Your task to perform on an android device: turn on bluetooth scan Image 0: 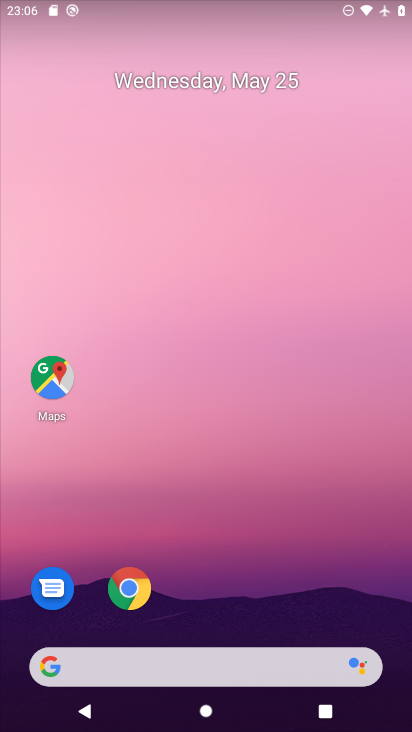
Step 0: drag from (256, 543) to (195, 109)
Your task to perform on an android device: turn on bluetooth scan Image 1: 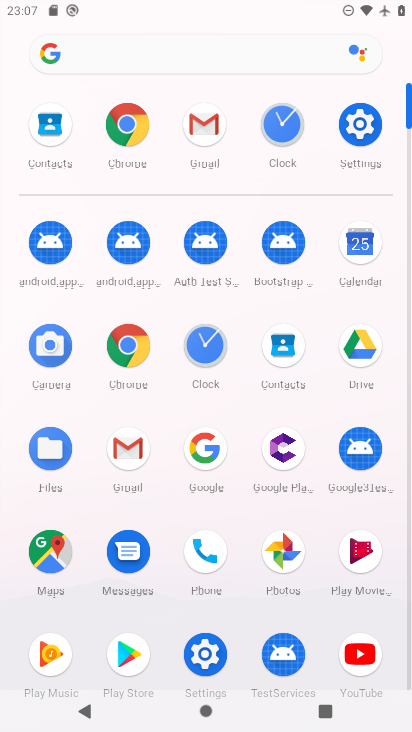
Step 1: click (356, 120)
Your task to perform on an android device: turn on bluetooth scan Image 2: 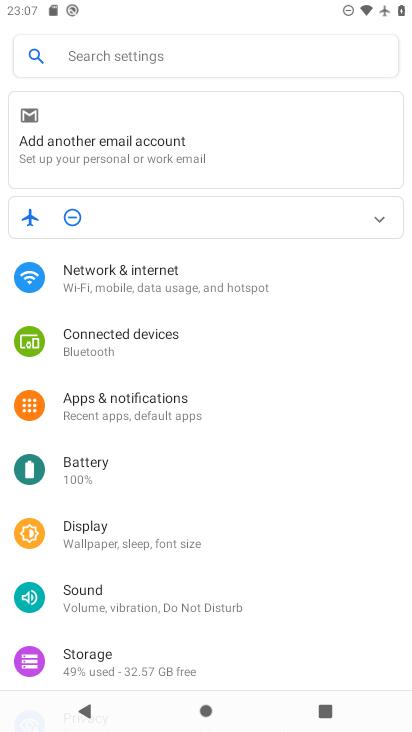
Step 2: drag from (239, 556) to (300, 215)
Your task to perform on an android device: turn on bluetooth scan Image 3: 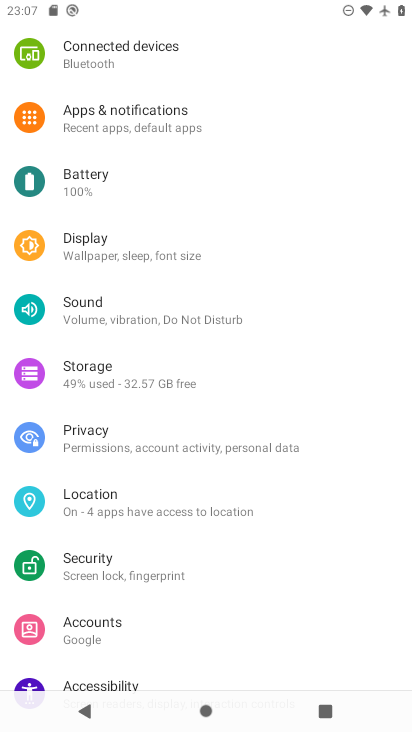
Step 3: click (167, 503)
Your task to perform on an android device: turn on bluetooth scan Image 4: 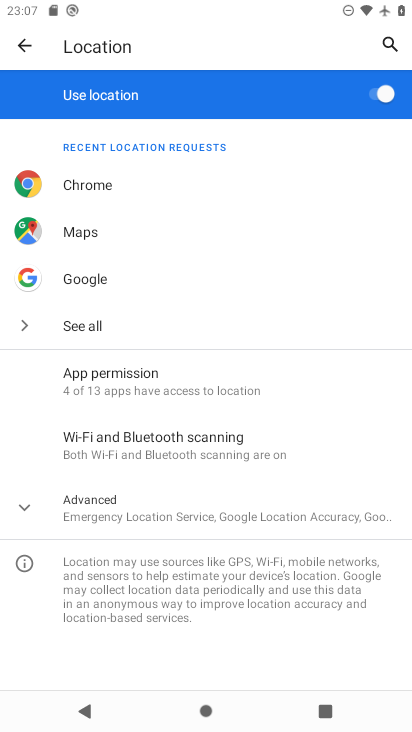
Step 4: click (193, 457)
Your task to perform on an android device: turn on bluetooth scan Image 5: 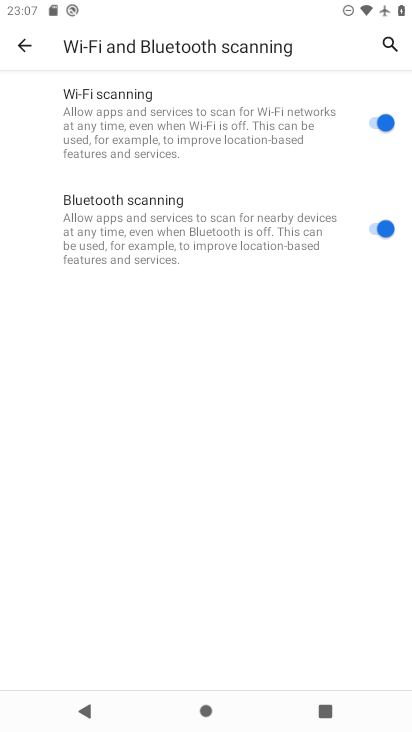
Step 5: task complete